Your task to perform on an android device: Search for "jbl flip 4" on amazon, select the first entry, and add it to the cart. Image 0: 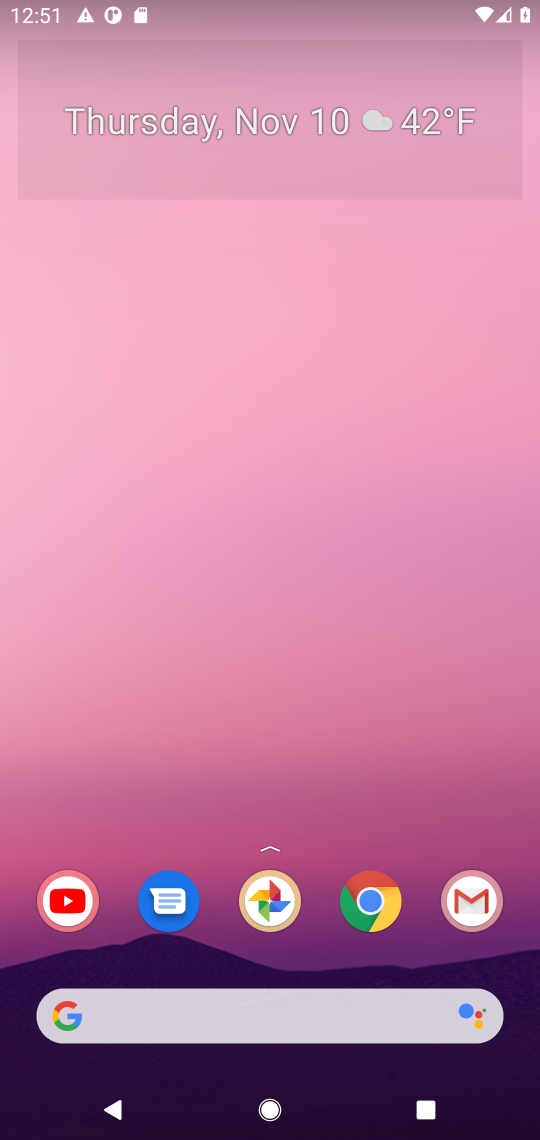
Step 0: drag from (227, 673) to (200, 184)
Your task to perform on an android device: Search for "jbl flip 4" on amazon, select the first entry, and add it to the cart. Image 1: 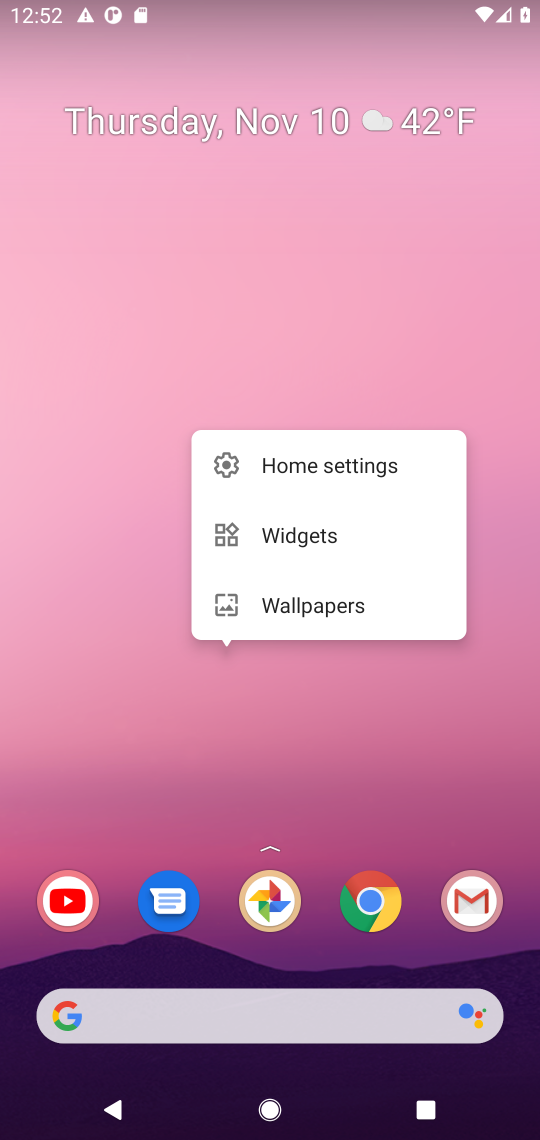
Step 1: click (208, 317)
Your task to perform on an android device: Search for "jbl flip 4" on amazon, select the first entry, and add it to the cart. Image 2: 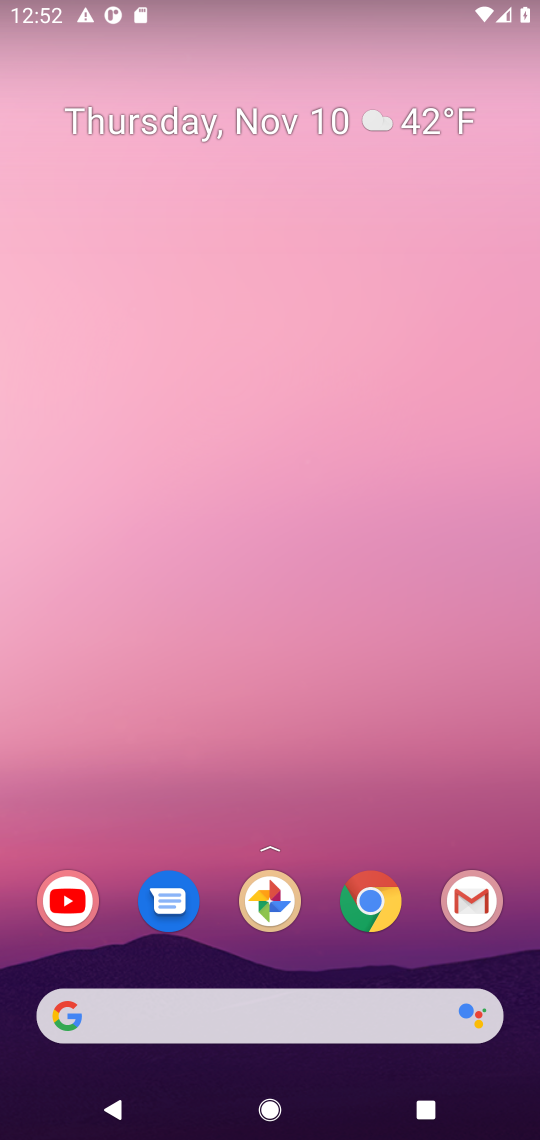
Step 2: drag from (268, 852) to (321, 118)
Your task to perform on an android device: Search for "jbl flip 4" on amazon, select the first entry, and add it to the cart. Image 3: 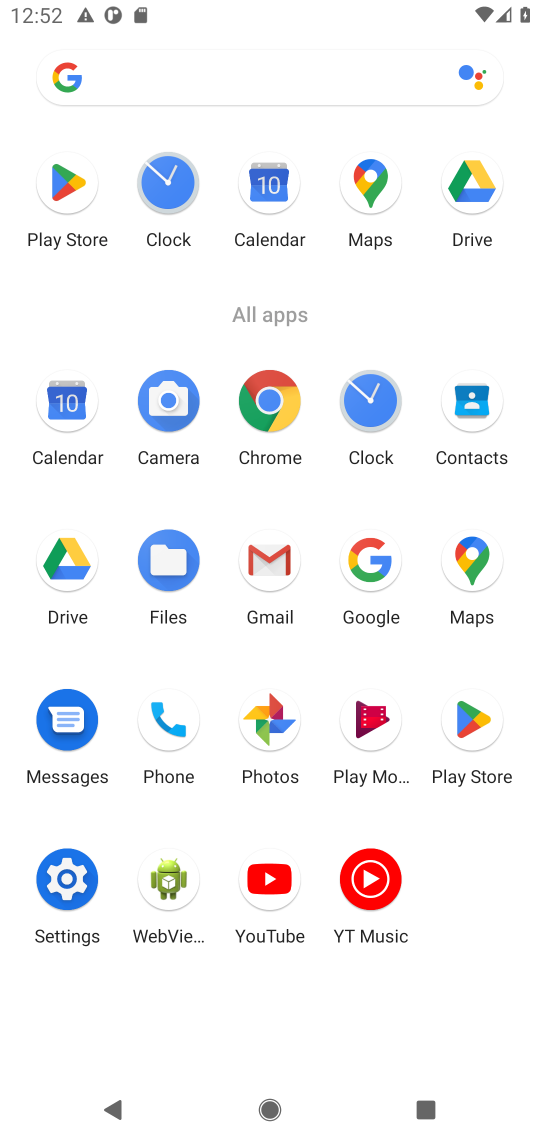
Step 3: click (285, 412)
Your task to perform on an android device: Search for "jbl flip 4" on amazon, select the first entry, and add it to the cart. Image 4: 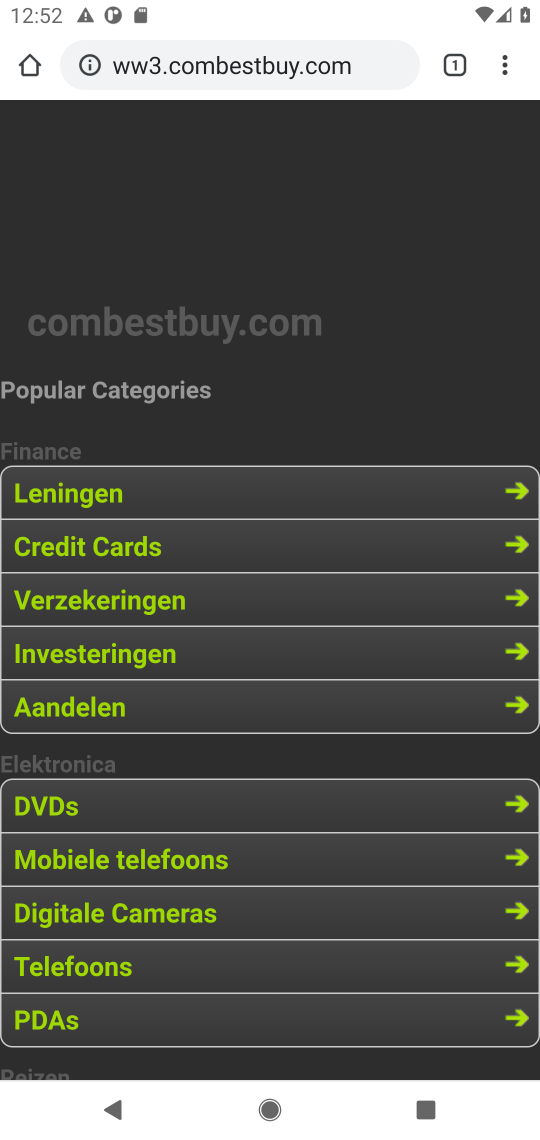
Step 4: click (180, 64)
Your task to perform on an android device: Search for "jbl flip 4" on amazon, select the first entry, and add it to the cart. Image 5: 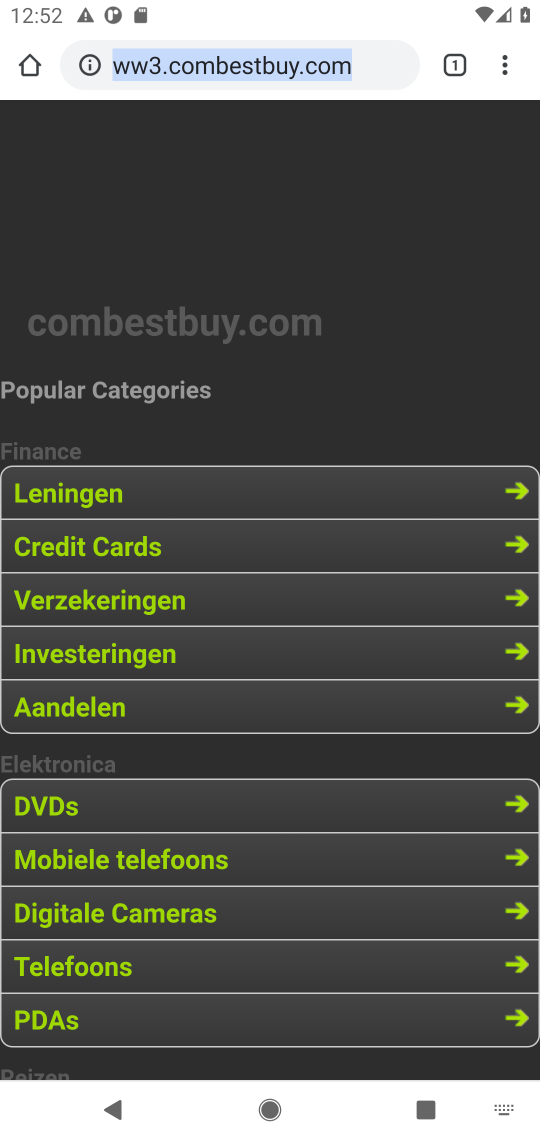
Step 5: click (180, 64)
Your task to perform on an android device: Search for "jbl flip 4" on amazon, select the first entry, and add it to the cart. Image 6: 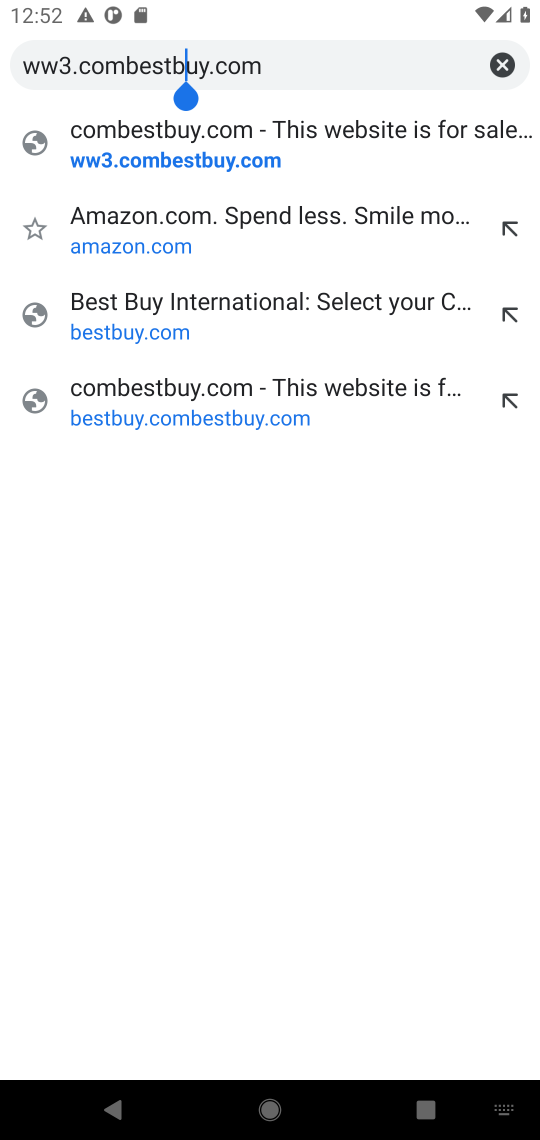
Step 6: click (499, 62)
Your task to perform on an android device: Search for "jbl flip 4" on amazon, select the first entry, and add it to the cart. Image 7: 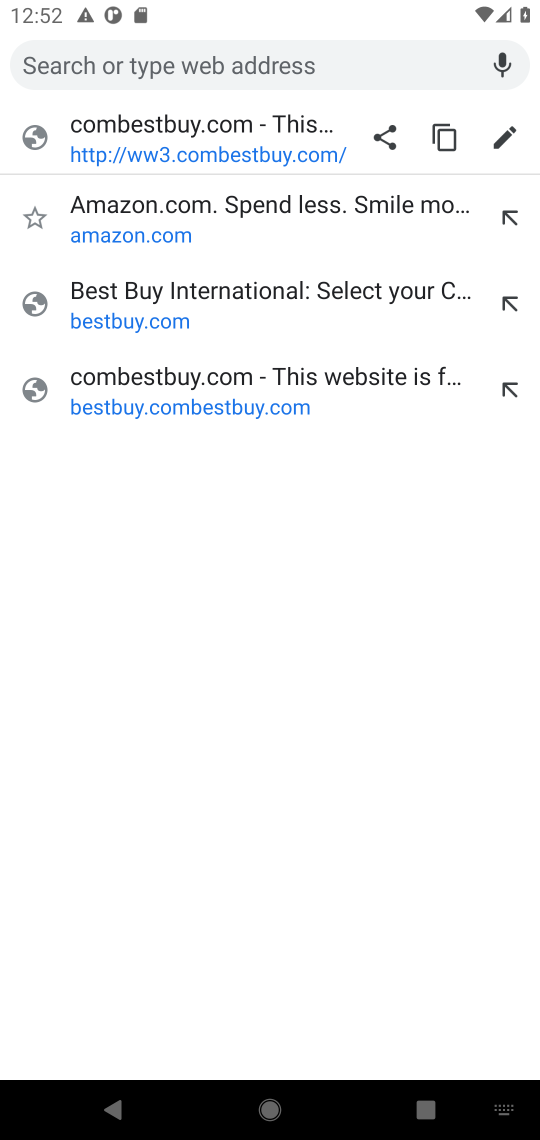
Step 7: type "amazon"
Your task to perform on an android device: Search for "jbl flip 4" on amazon, select the first entry, and add it to the cart. Image 8: 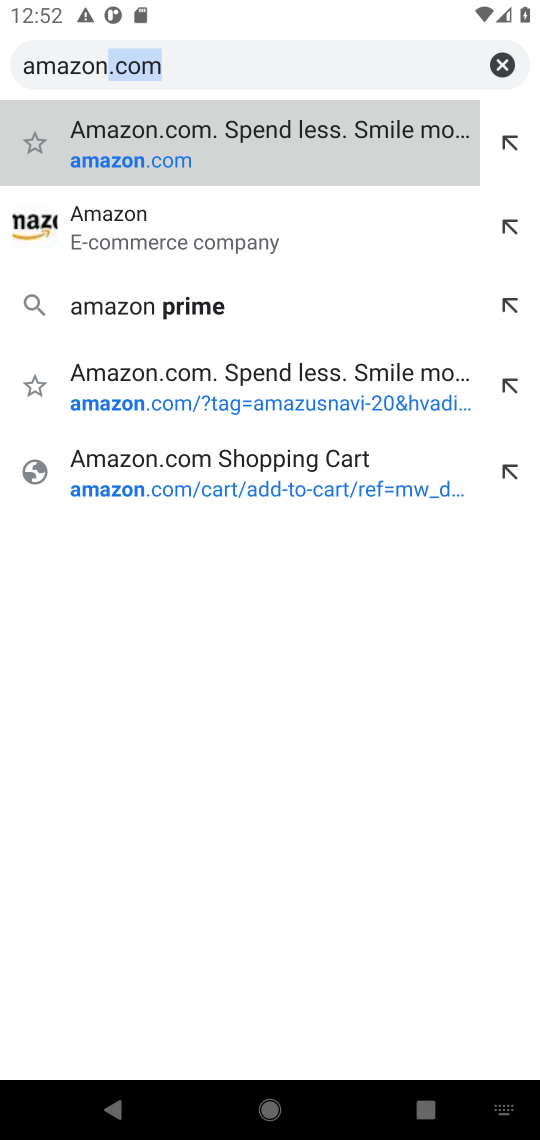
Step 8: press enter
Your task to perform on an android device: Search for "jbl flip 4" on amazon, select the first entry, and add it to the cart. Image 9: 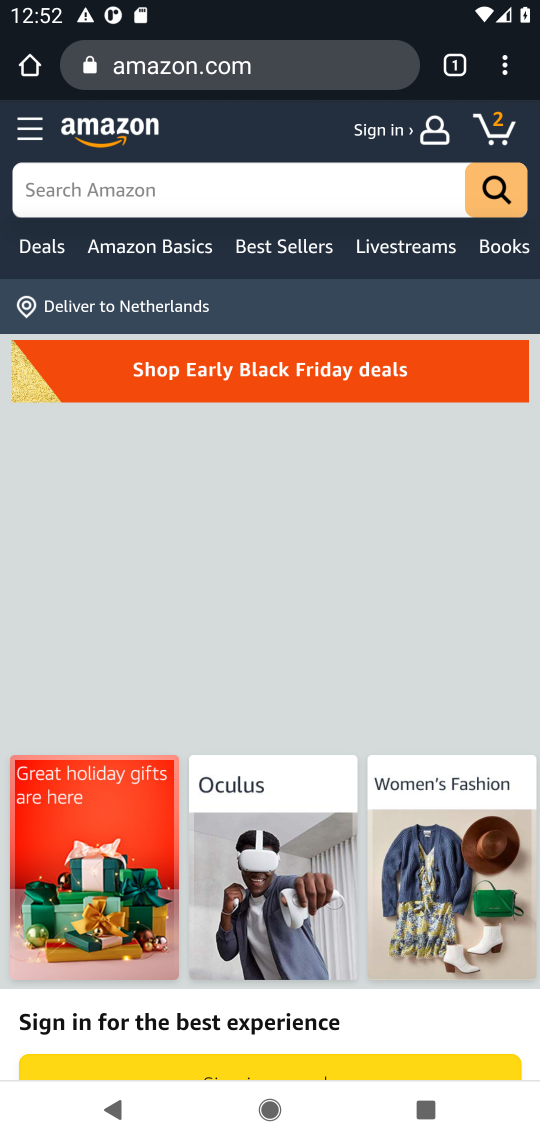
Step 9: click (60, 184)
Your task to perform on an android device: Search for "jbl flip 4" on amazon, select the first entry, and add it to the cart. Image 10: 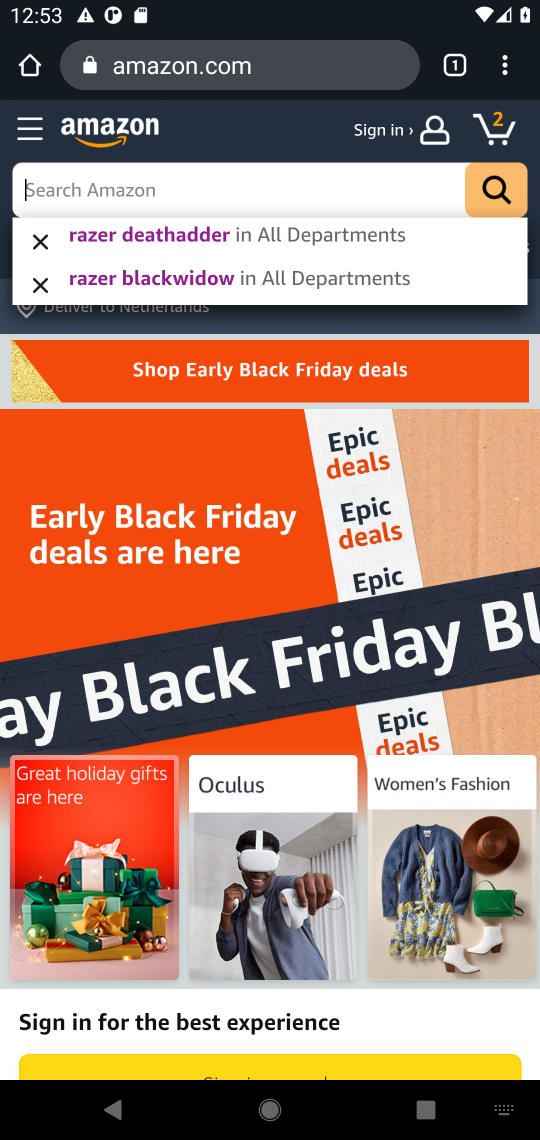
Step 10: type "jbl flip 4"
Your task to perform on an android device: Search for "jbl flip 4" on amazon, select the first entry, and add it to the cart. Image 11: 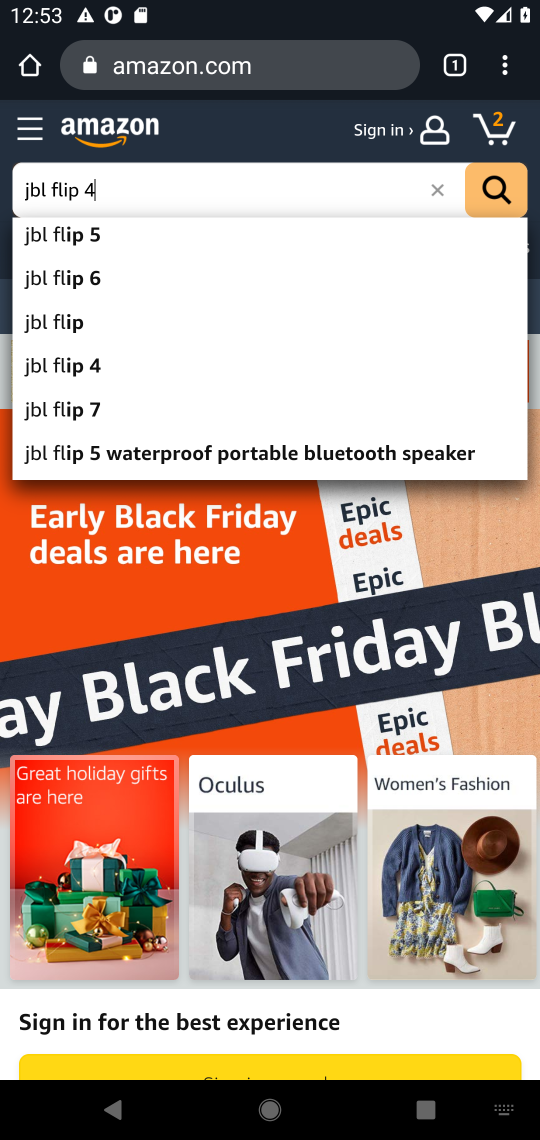
Step 11: press enter
Your task to perform on an android device: Search for "jbl flip 4" on amazon, select the first entry, and add it to the cart. Image 12: 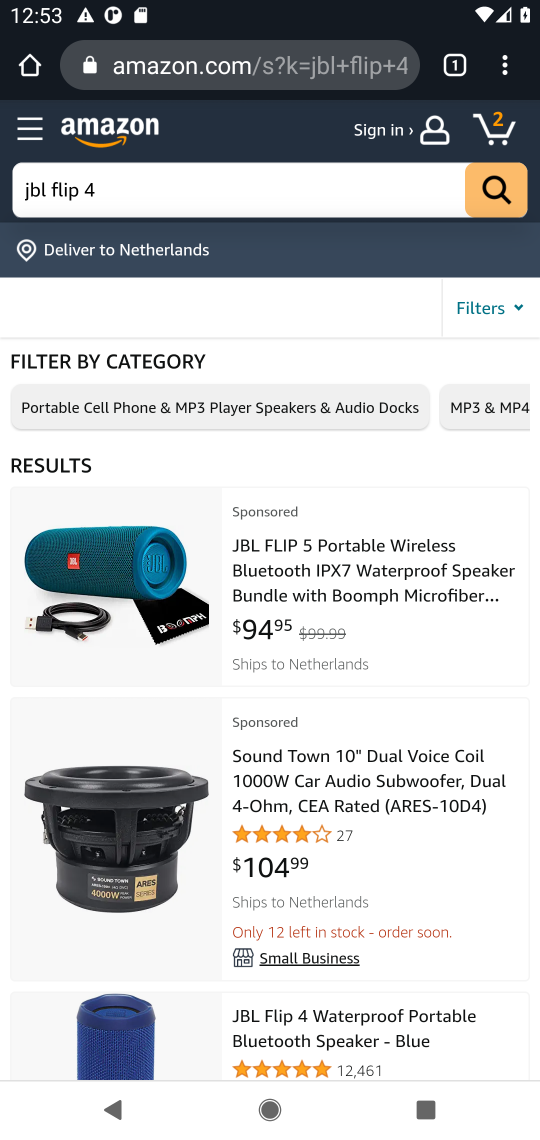
Step 12: click (281, 554)
Your task to perform on an android device: Search for "jbl flip 4" on amazon, select the first entry, and add it to the cart. Image 13: 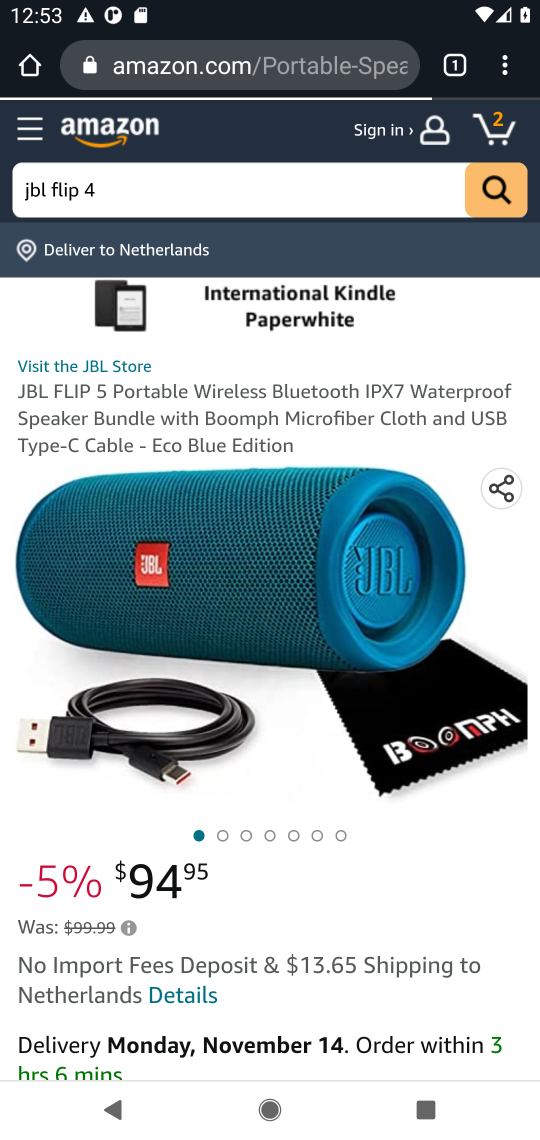
Step 13: drag from (260, 822) to (287, 300)
Your task to perform on an android device: Search for "jbl flip 4" on amazon, select the first entry, and add it to the cart. Image 14: 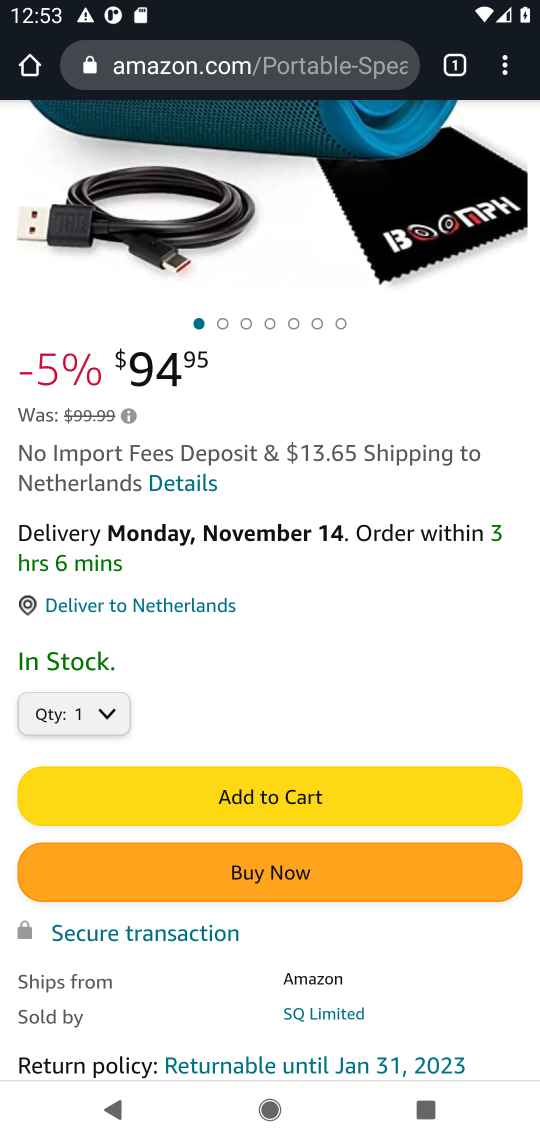
Step 14: click (266, 804)
Your task to perform on an android device: Search for "jbl flip 4" on amazon, select the first entry, and add it to the cart. Image 15: 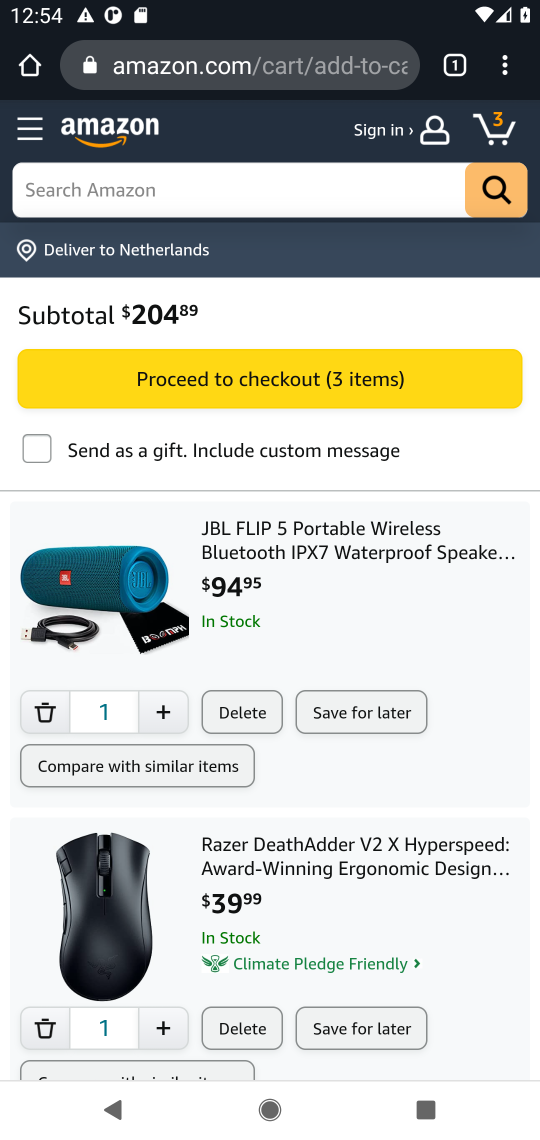
Step 15: task complete